Your task to perform on an android device: turn on improve location accuracy Image 0: 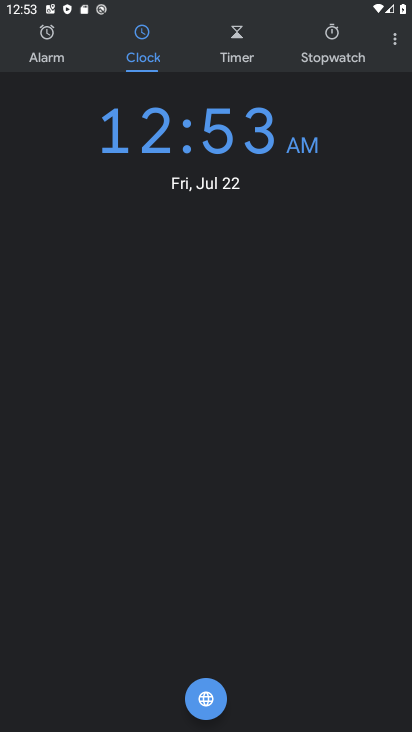
Step 0: press home button
Your task to perform on an android device: turn on improve location accuracy Image 1: 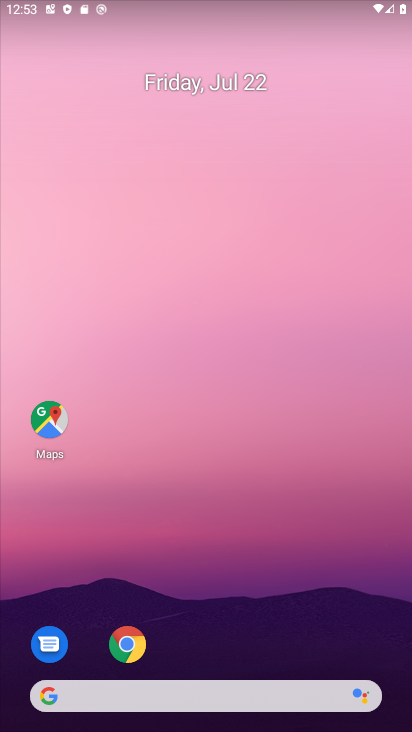
Step 1: drag from (207, 654) to (257, 142)
Your task to perform on an android device: turn on improve location accuracy Image 2: 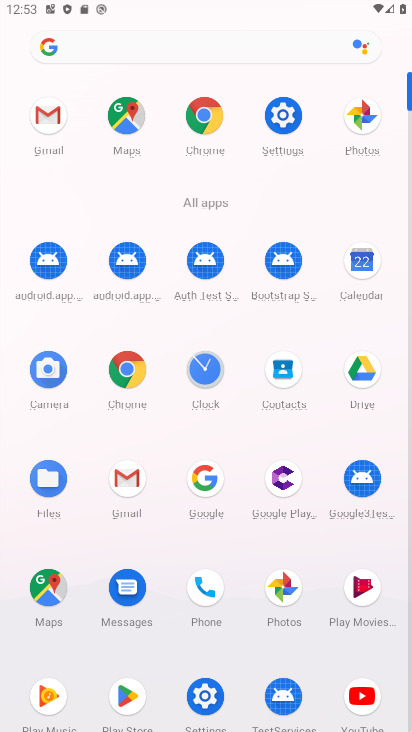
Step 2: click (281, 112)
Your task to perform on an android device: turn on improve location accuracy Image 3: 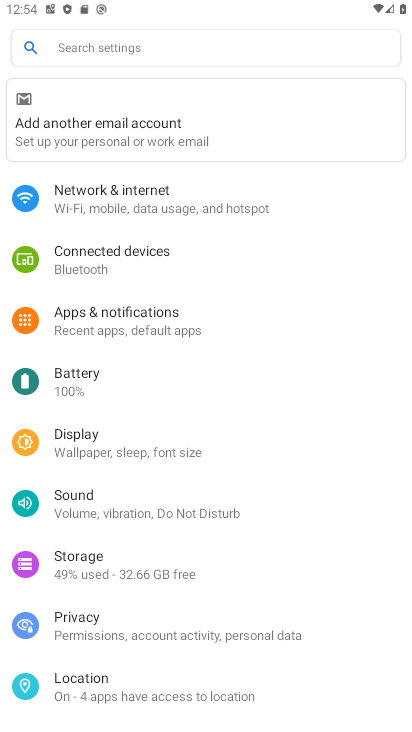
Step 3: click (134, 687)
Your task to perform on an android device: turn on improve location accuracy Image 4: 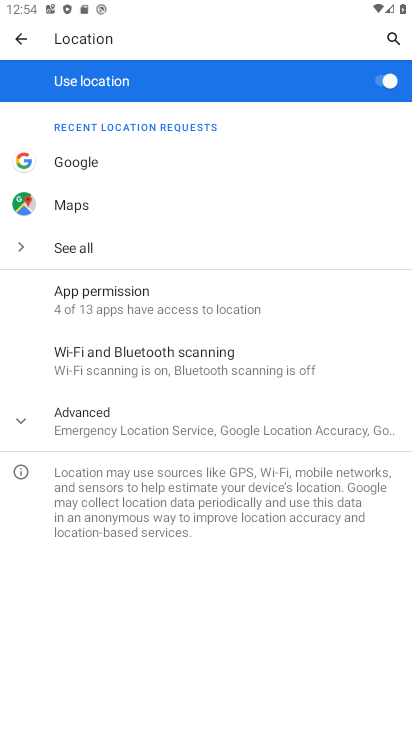
Step 4: click (75, 419)
Your task to perform on an android device: turn on improve location accuracy Image 5: 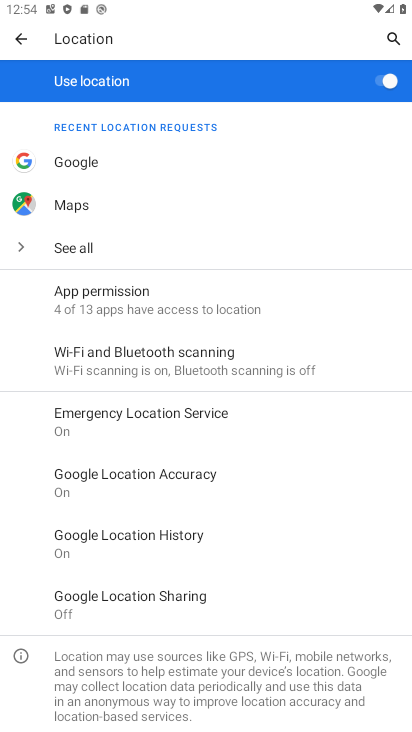
Step 5: click (143, 478)
Your task to perform on an android device: turn on improve location accuracy Image 6: 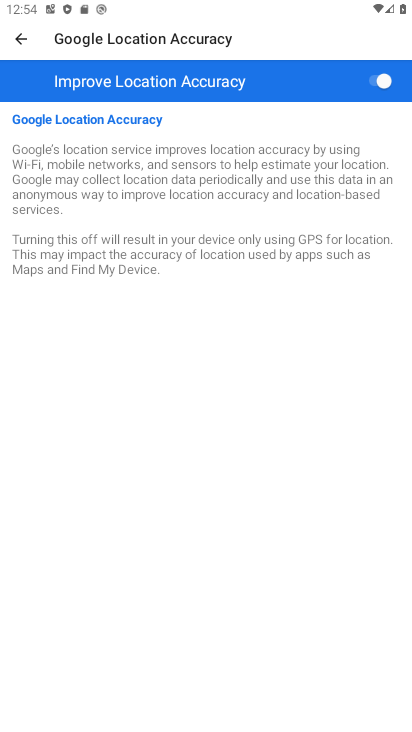
Step 6: task complete